Your task to perform on an android device: Open Youtube and go to "Your channel" Image 0: 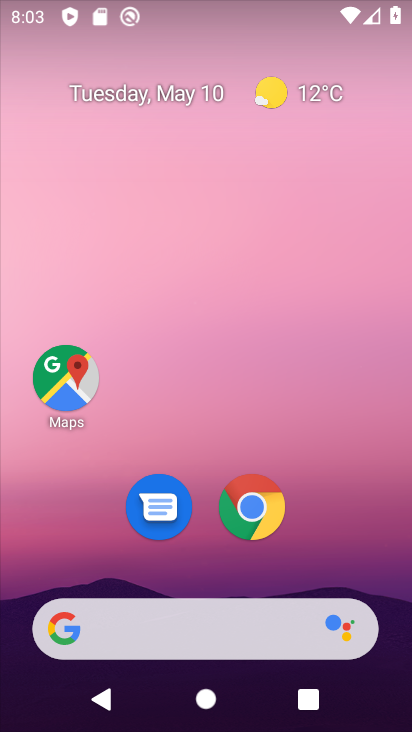
Step 0: drag from (168, 592) to (308, 130)
Your task to perform on an android device: Open Youtube and go to "Your channel" Image 1: 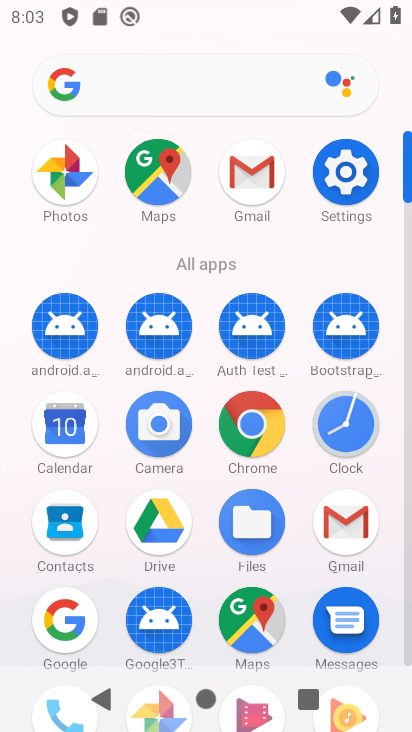
Step 1: drag from (237, 606) to (288, 307)
Your task to perform on an android device: Open Youtube and go to "Your channel" Image 2: 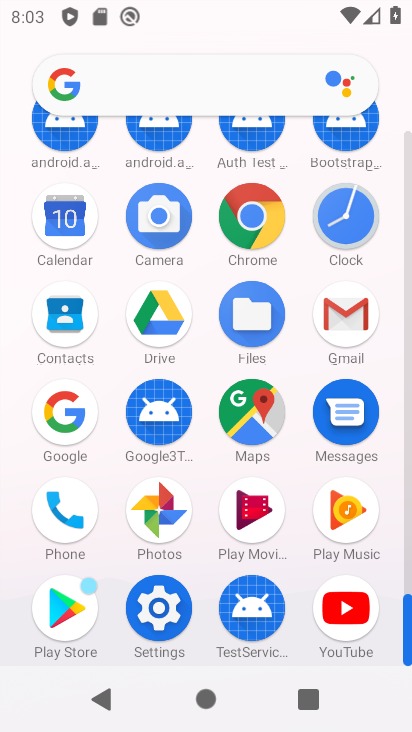
Step 2: click (357, 608)
Your task to perform on an android device: Open Youtube and go to "Your channel" Image 3: 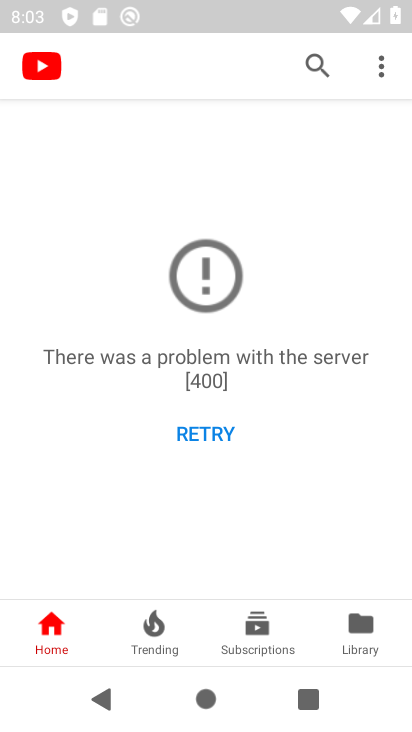
Step 3: click (344, 636)
Your task to perform on an android device: Open Youtube and go to "Your channel" Image 4: 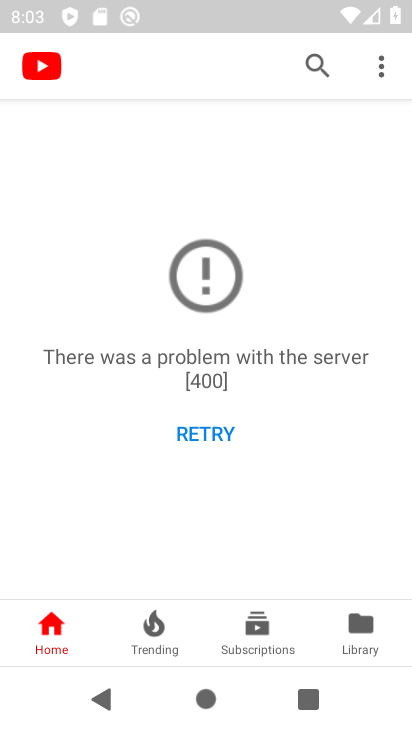
Step 4: click (385, 620)
Your task to perform on an android device: Open Youtube and go to "Your channel" Image 5: 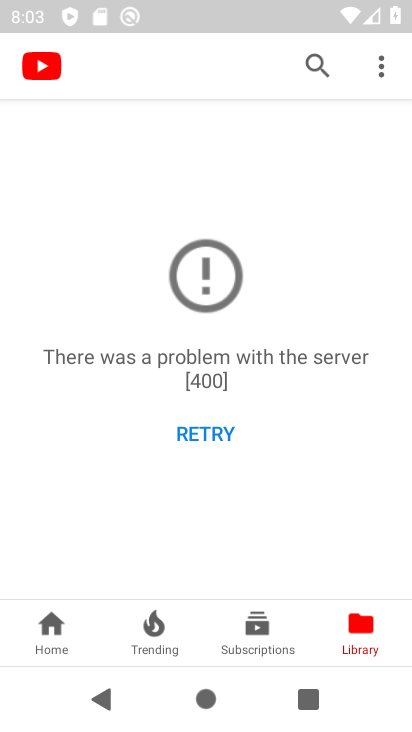
Step 5: task complete